Your task to perform on an android device: Clear the shopping cart on ebay. Add "macbook" to the cart on ebay, then select checkout. Image 0: 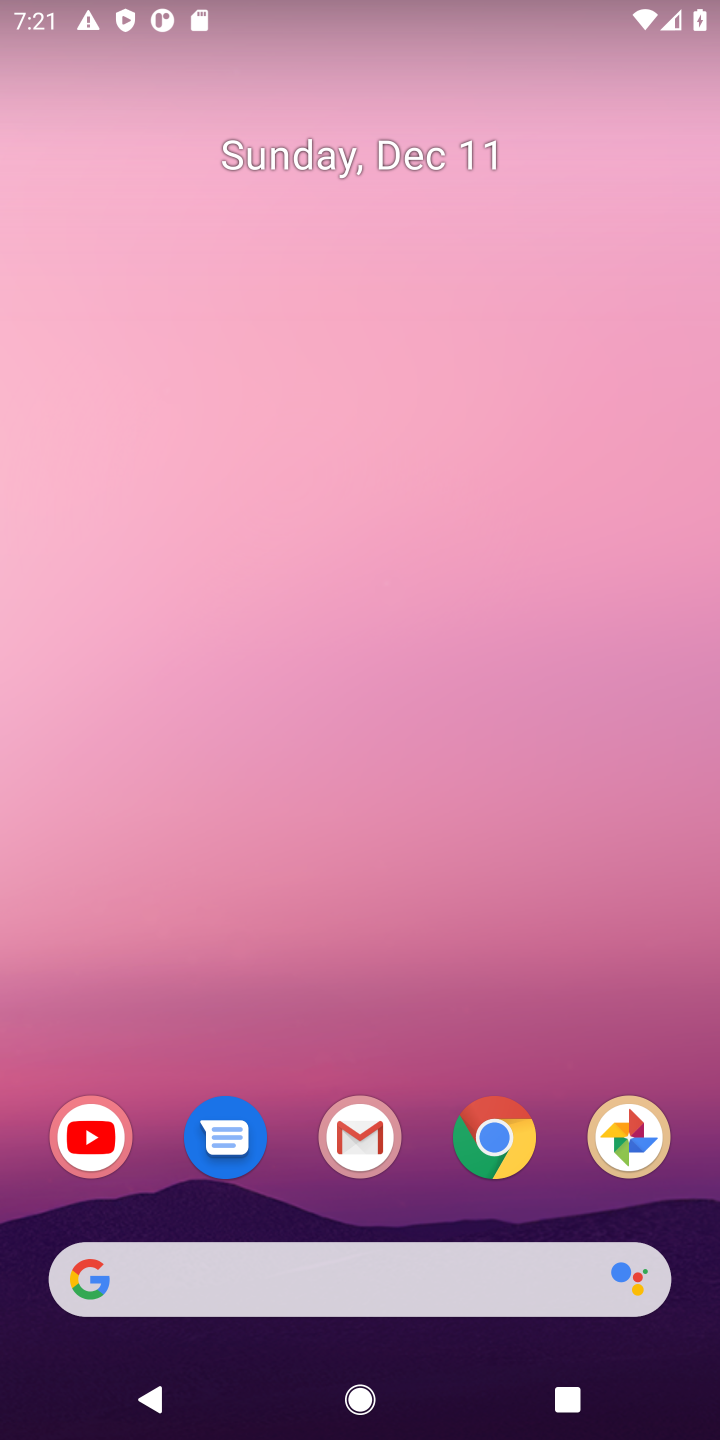
Step 0: click (485, 1130)
Your task to perform on an android device: Clear the shopping cart on ebay. Add "macbook" to the cart on ebay, then select checkout. Image 1: 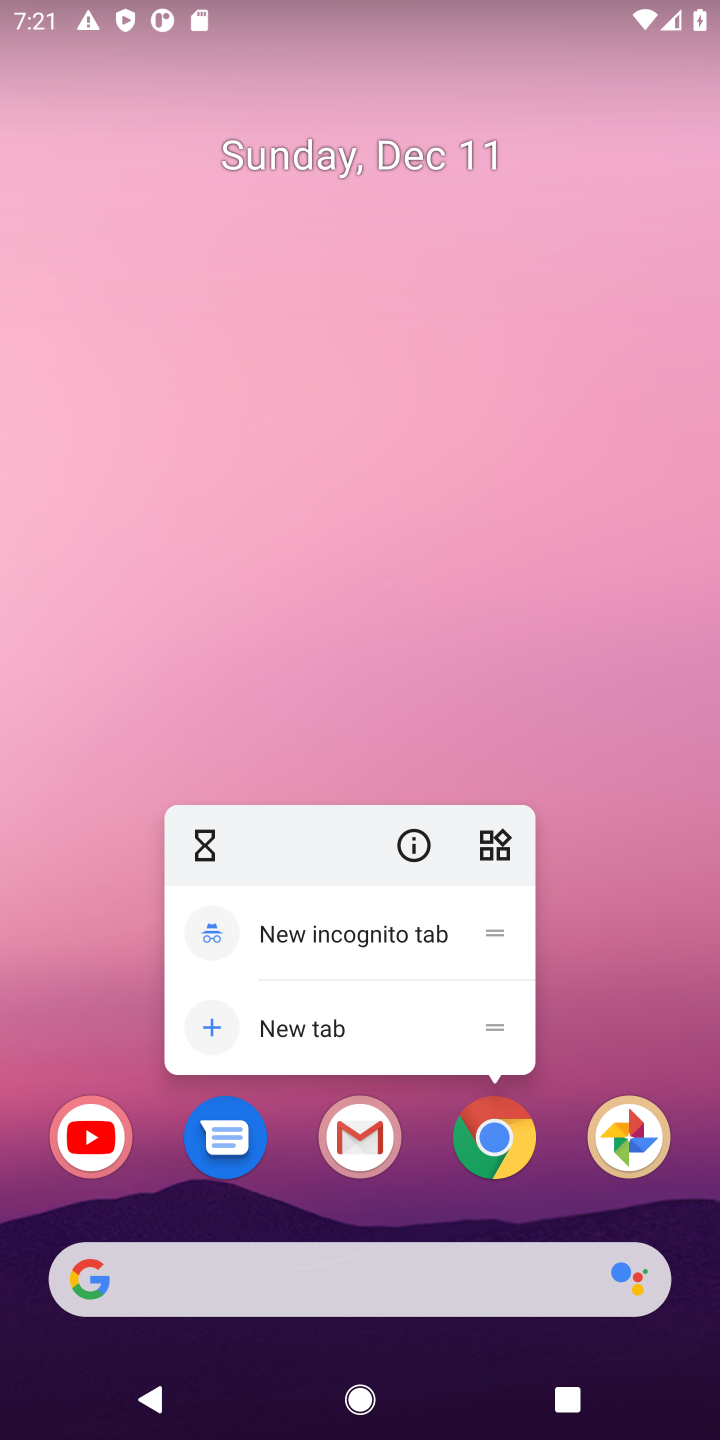
Step 1: click (493, 1117)
Your task to perform on an android device: Clear the shopping cart on ebay. Add "macbook" to the cart on ebay, then select checkout. Image 2: 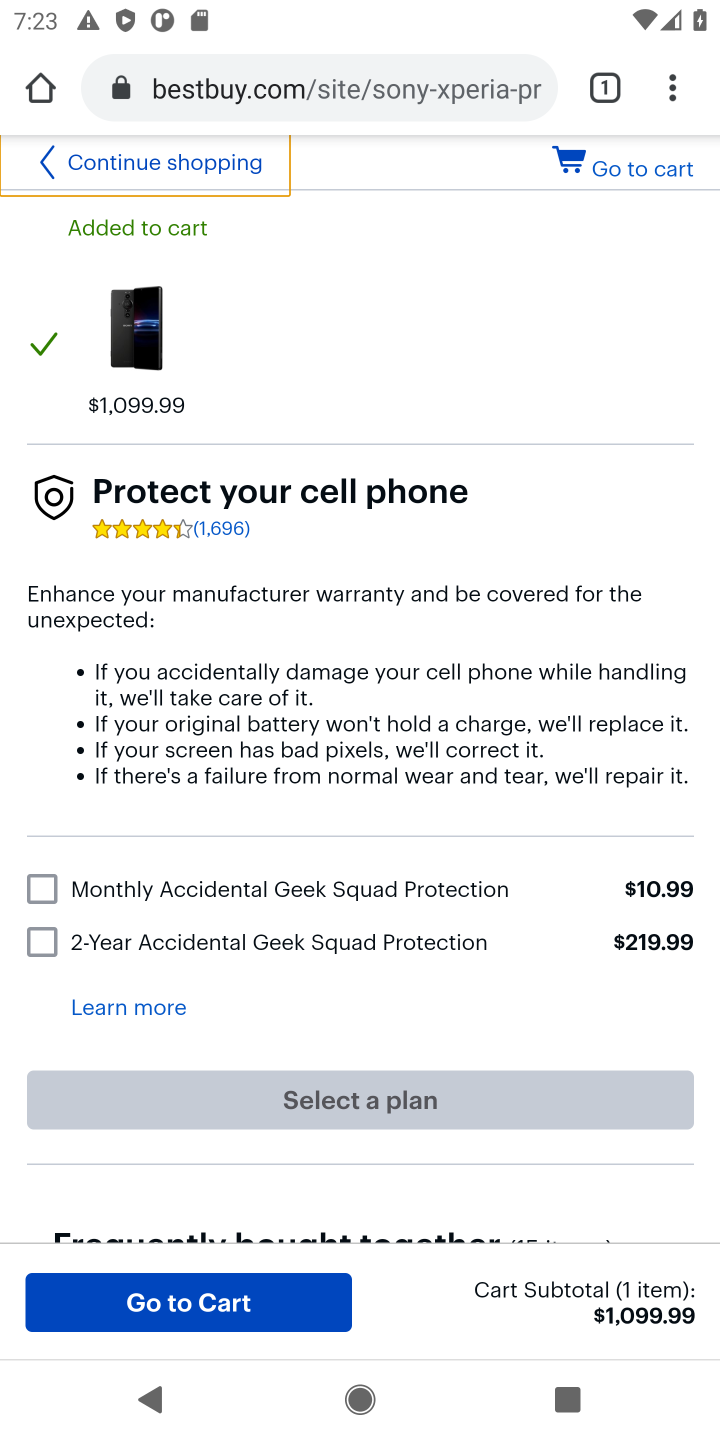
Step 2: click (418, 84)
Your task to perform on an android device: Clear the shopping cart on ebay. Add "macbook" to the cart on ebay, then select checkout. Image 3: 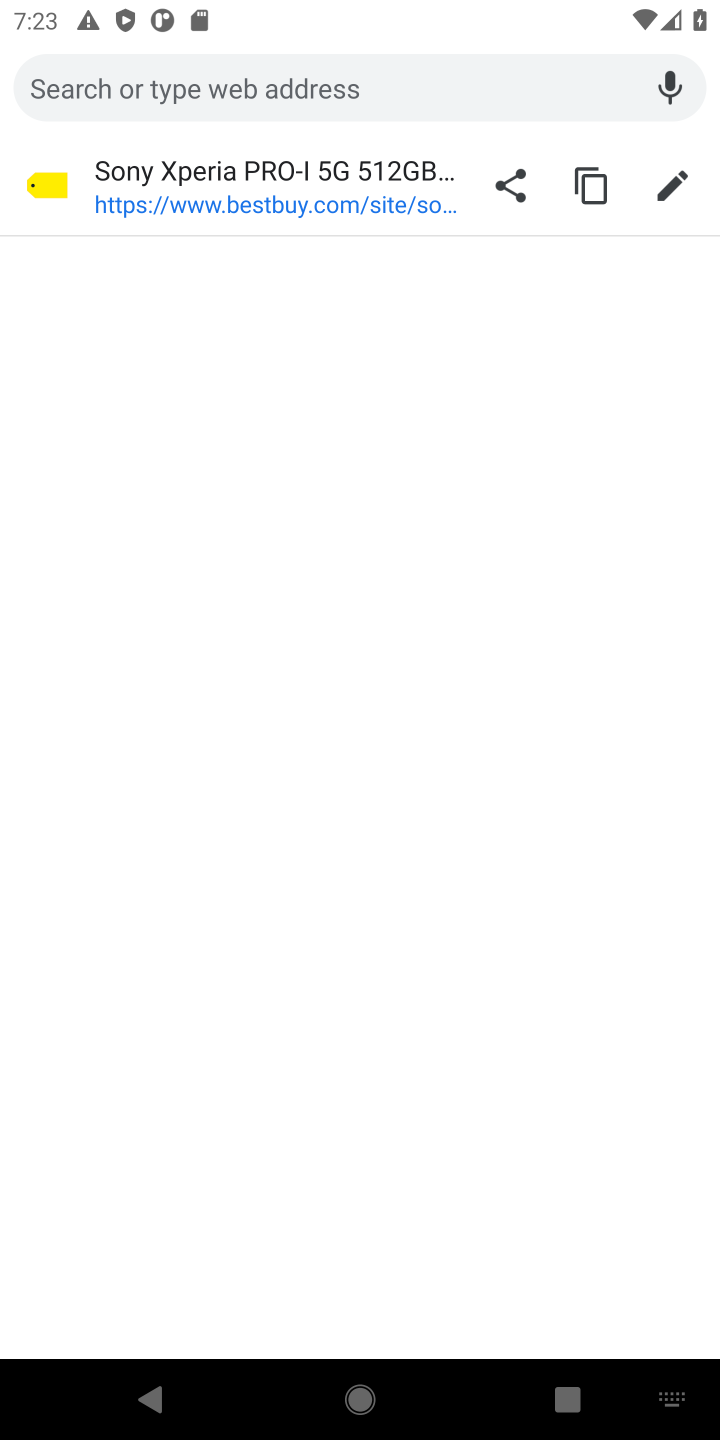
Step 3: type "ebay"
Your task to perform on an android device: Clear the shopping cart on ebay. Add "macbook" to the cart on ebay, then select checkout. Image 4: 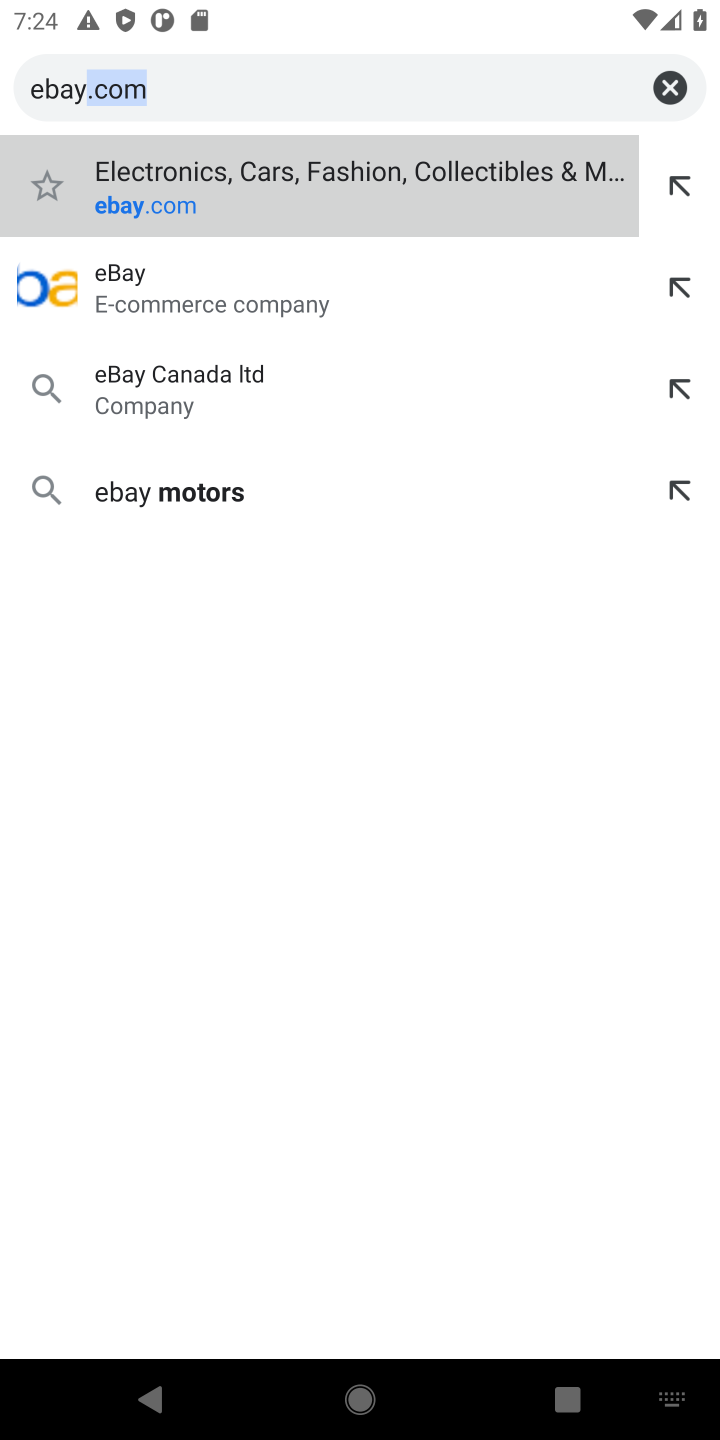
Step 4: click (449, 195)
Your task to perform on an android device: Clear the shopping cart on ebay. Add "macbook" to the cart on ebay, then select checkout. Image 5: 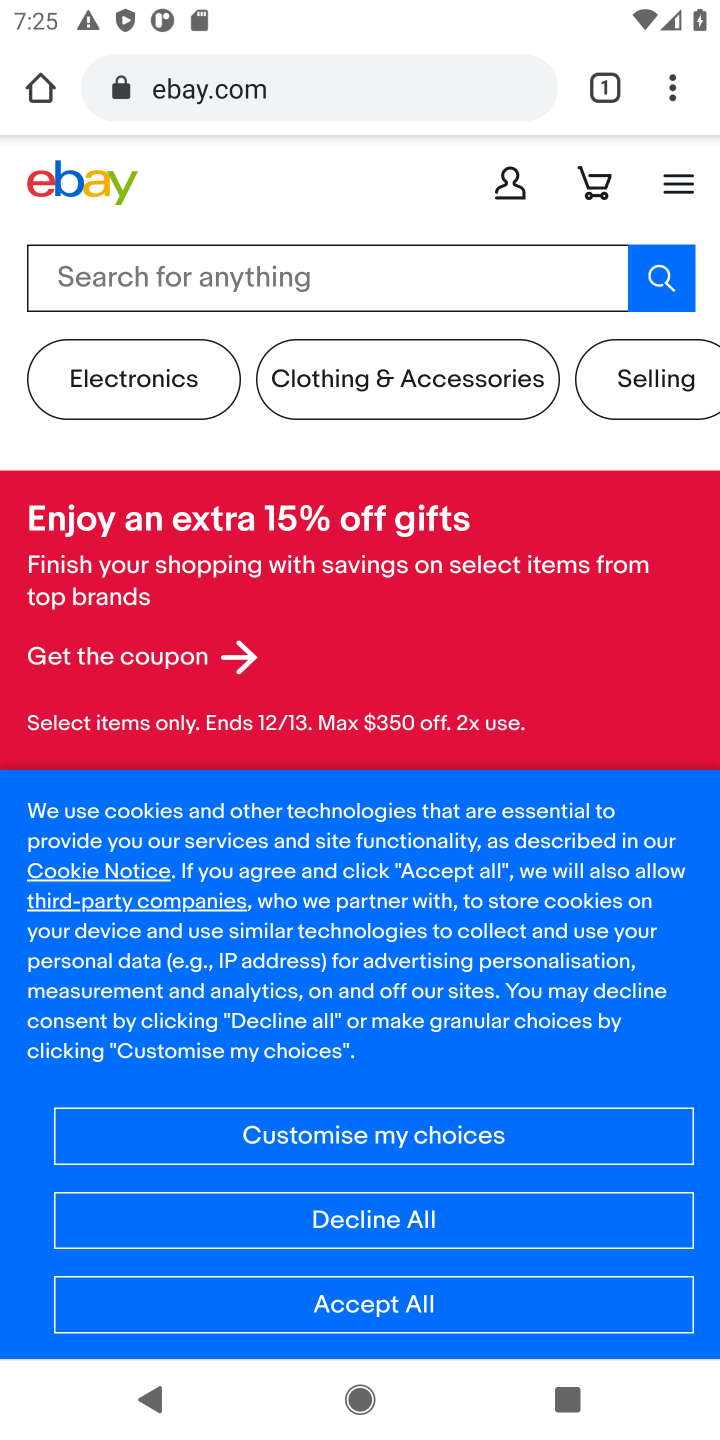
Step 5: click (343, 275)
Your task to perform on an android device: Clear the shopping cart on ebay. Add "macbook" to the cart on ebay, then select checkout. Image 6: 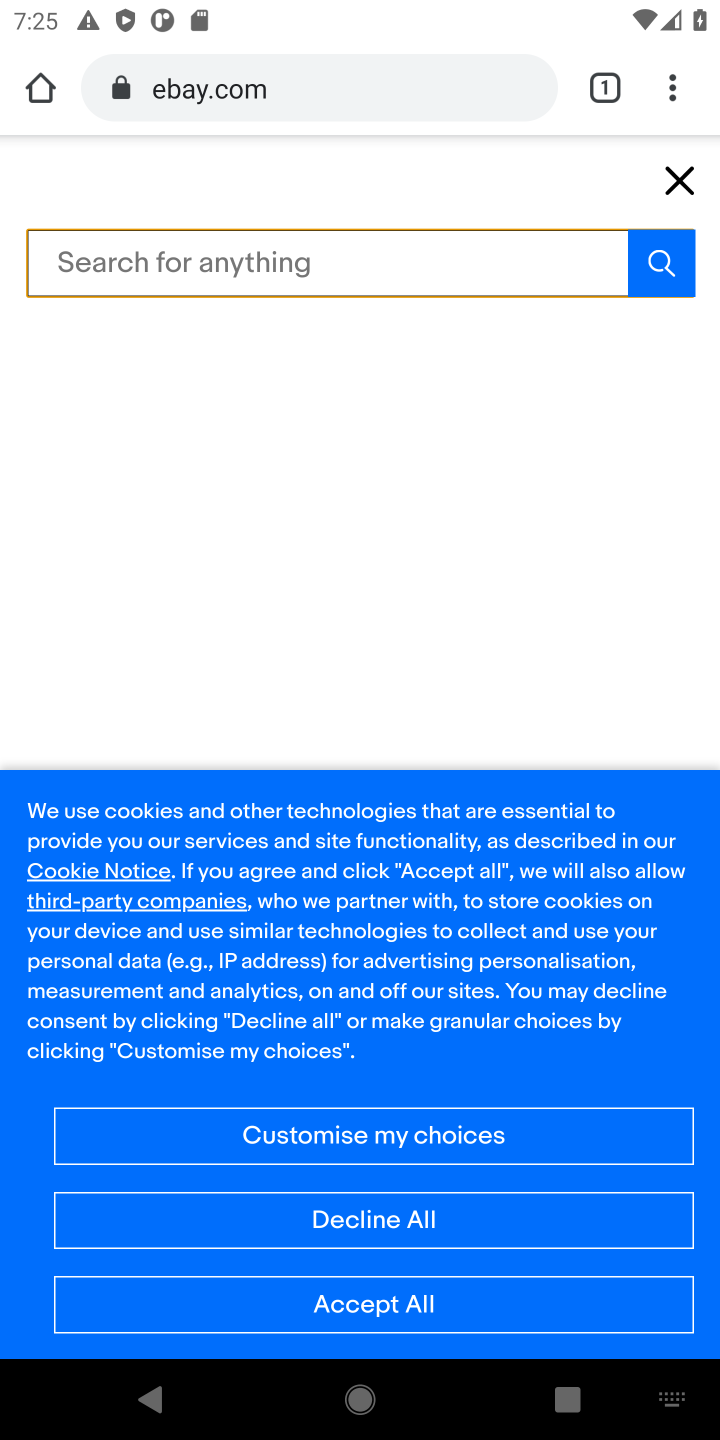
Step 6: type "macbook"
Your task to perform on an android device: Clear the shopping cart on ebay. Add "macbook" to the cart on ebay, then select checkout. Image 7: 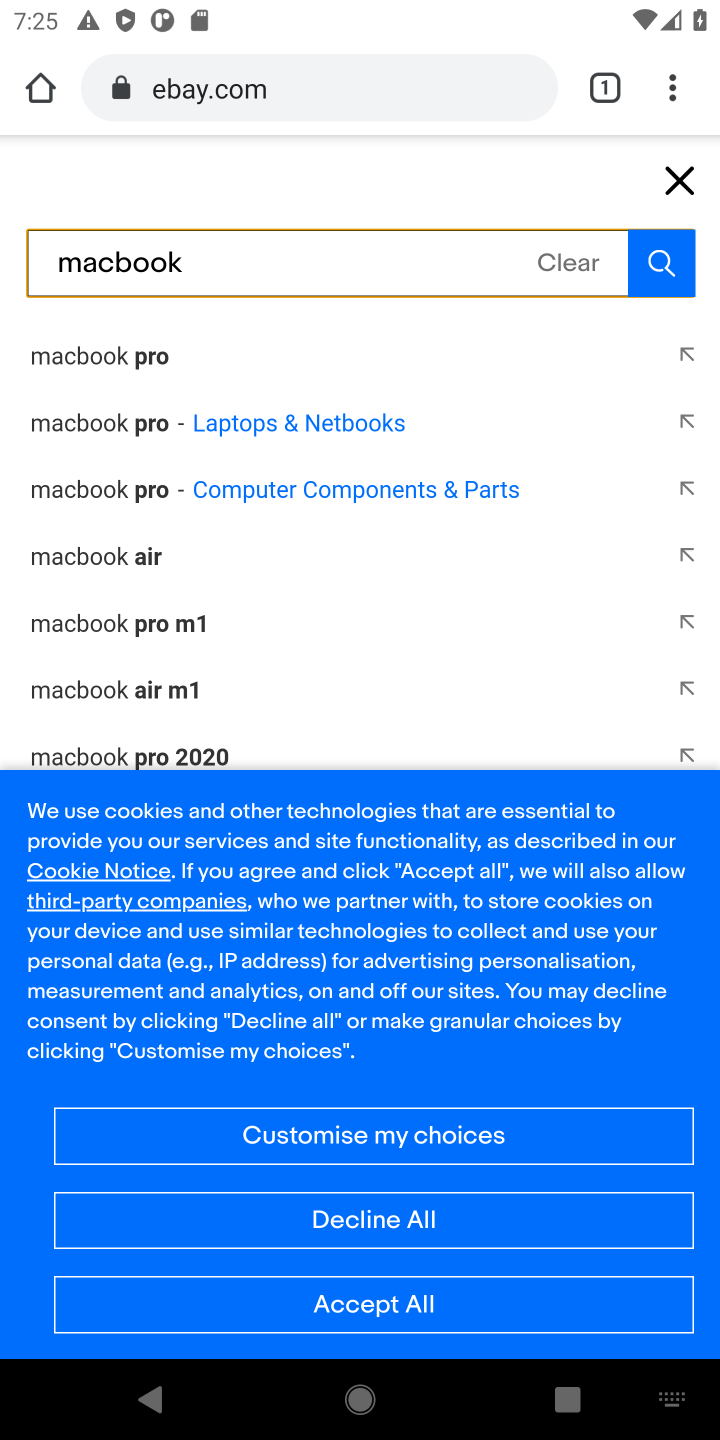
Step 7: click (366, 1306)
Your task to perform on an android device: Clear the shopping cart on ebay. Add "macbook" to the cart on ebay, then select checkout. Image 8: 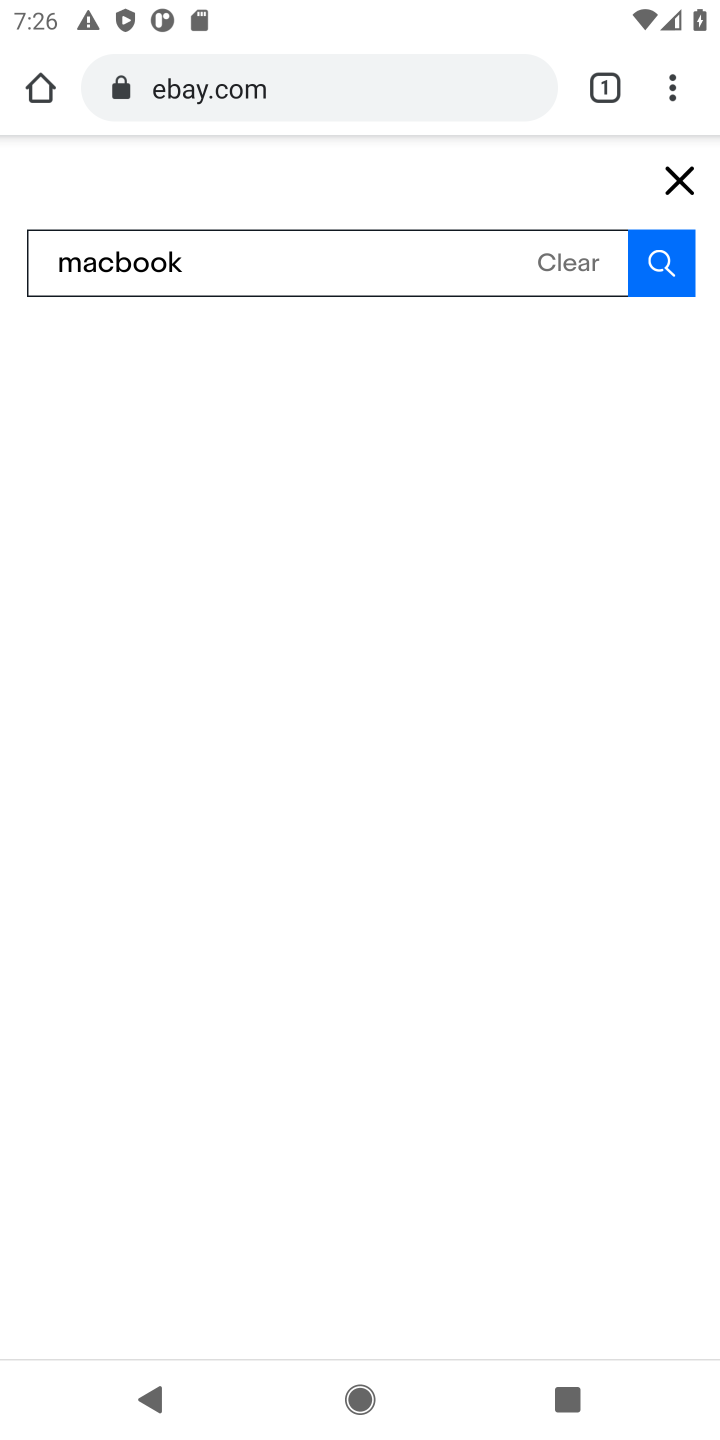
Step 8: click (667, 270)
Your task to perform on an android device: Clear the shopping cart on ebay. Add "macbook" to the cart on ebay, then select checkout. Image 9: 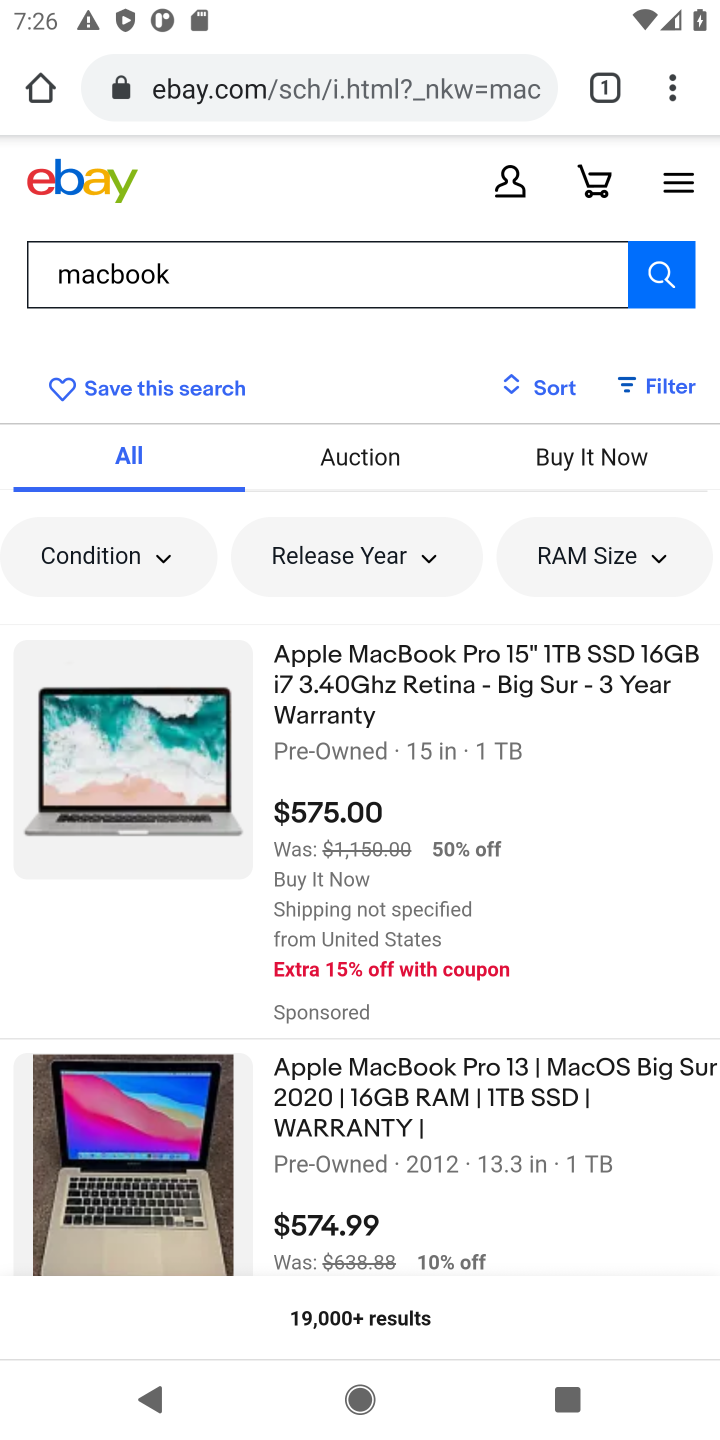
Step 9: click (206, 803)
Your task to perform on an android device: Clear the shopping cart on ebay. Add "macbook" to the cart on ebay, then select checkout. Image 10: 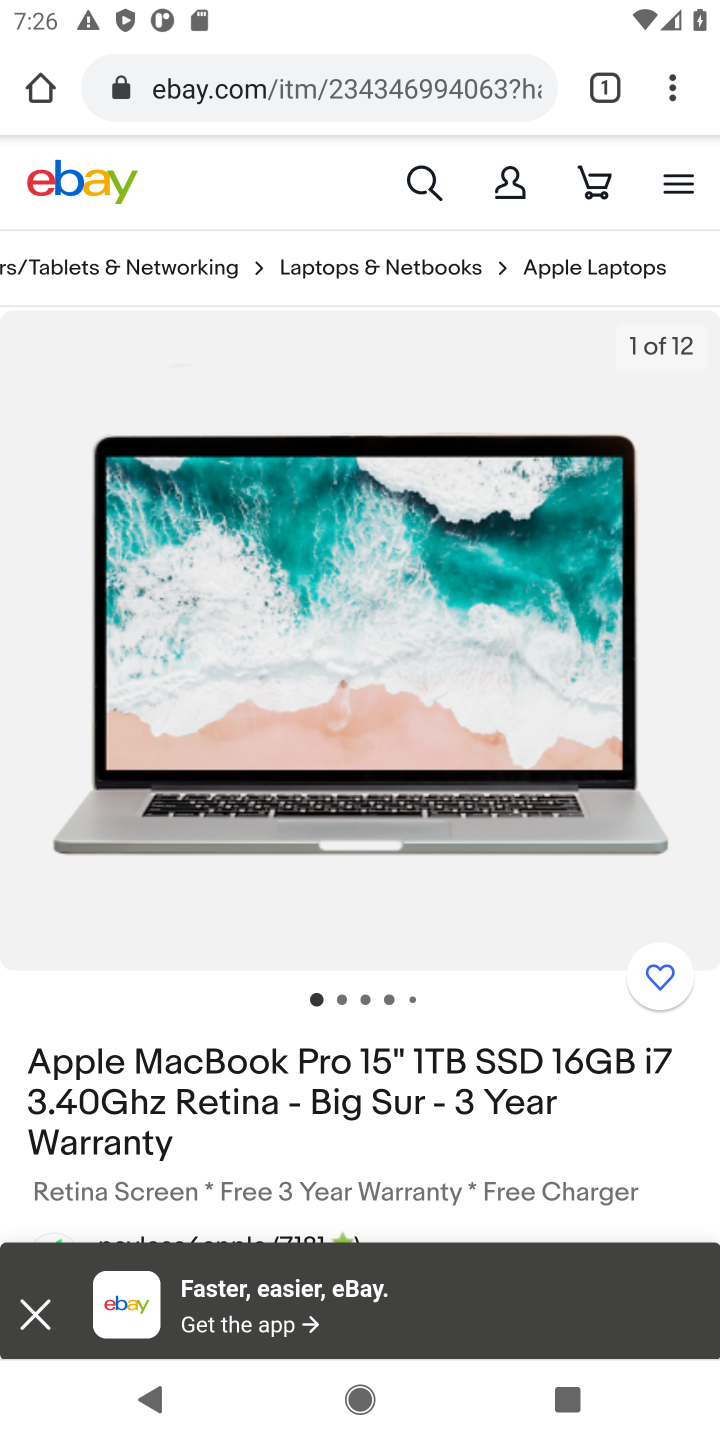
Step 10: drag from (365, 1179) to (326, 191)
Your task to perform on an android device: Clear the shopping cart on ebay. Add "macbook" to the cart on ebay, then select checkout. Image 11: 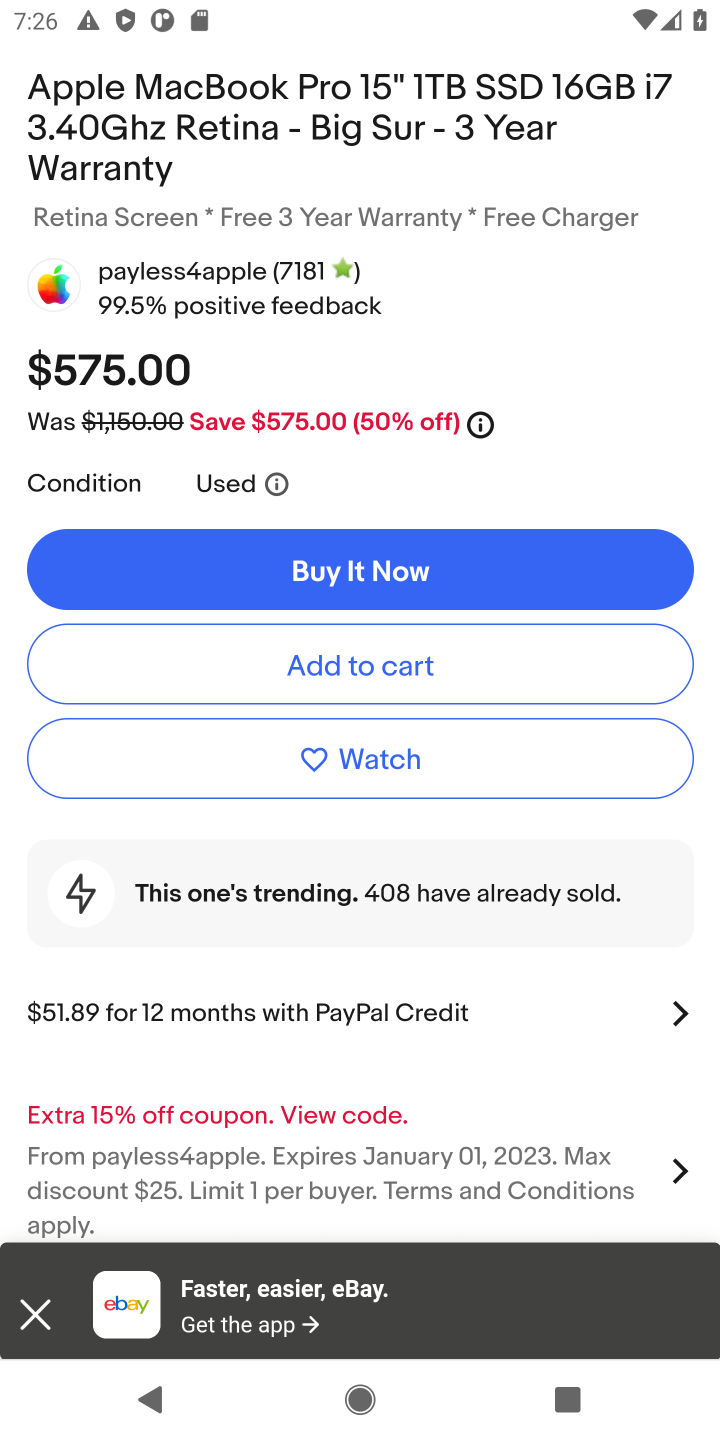
Step 11: click (354, 658)
Your task to perform on an android device: Clear the shopping cart on ebay. Add "macbook" to the cart on ebay, then select checkout. Image 12: 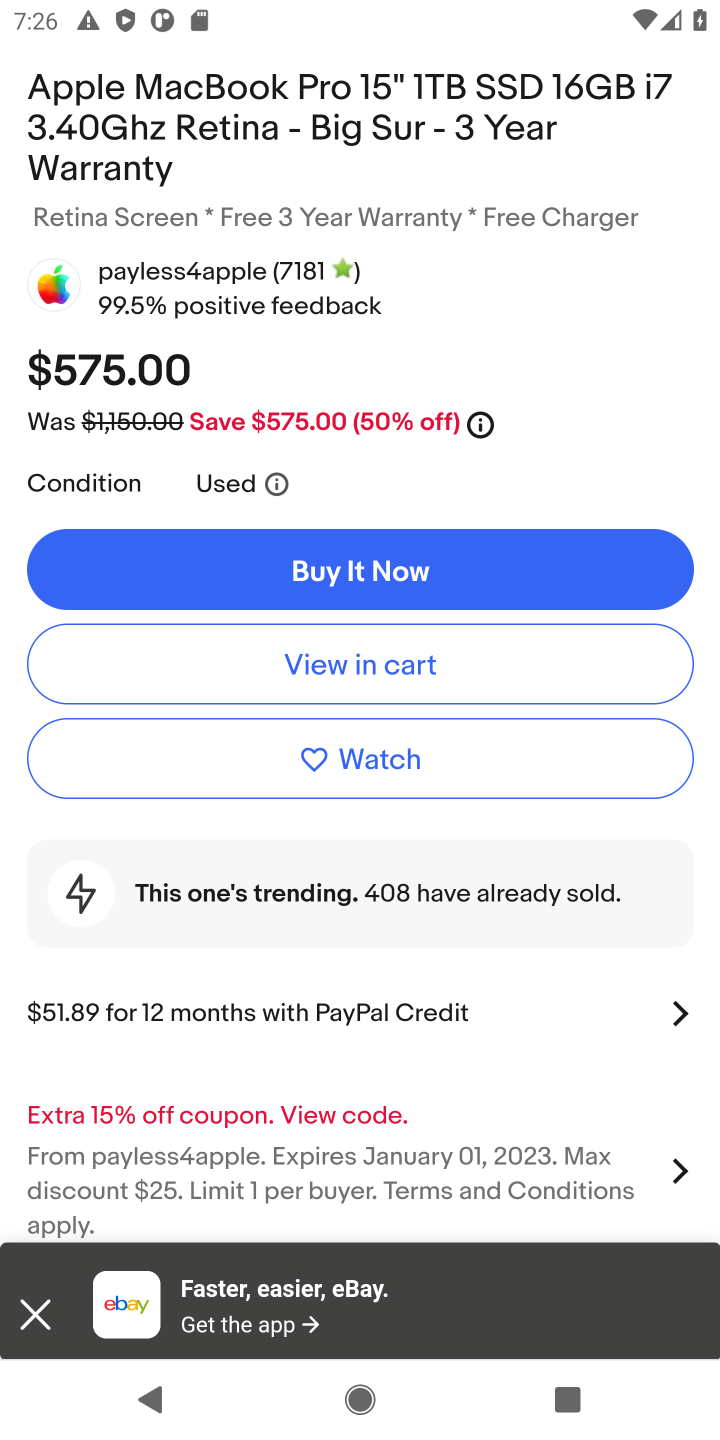
Step 12: click (369, 663)
Your task to perform on an android device: Clear the shopping cart on ebay. Add "macbook" to the cart on ebay, then select checkout. Image 13: 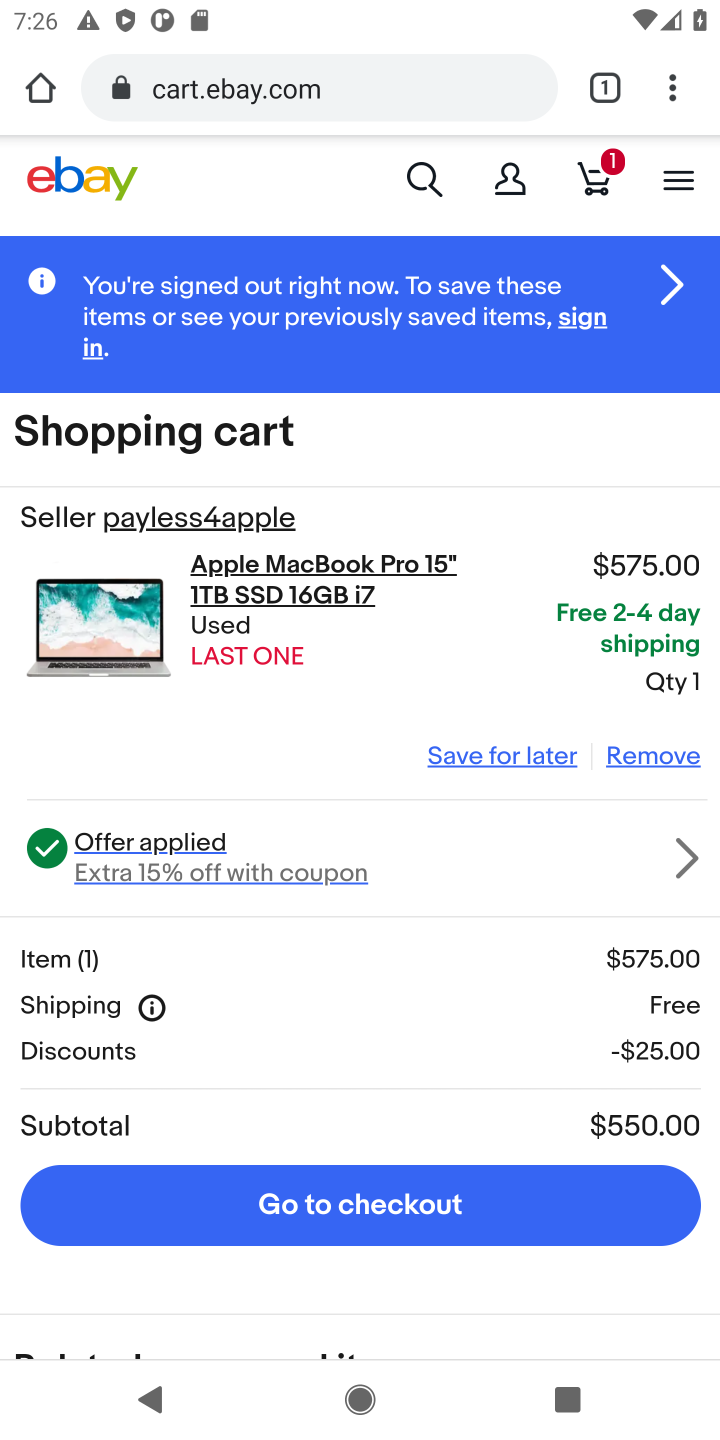
Step 13: click (416, 1211)
Your task to perform on an android device: Clear the shopping cart on ebay. Add "macbook" to the cart on ebay, then select checkout. Image 14: 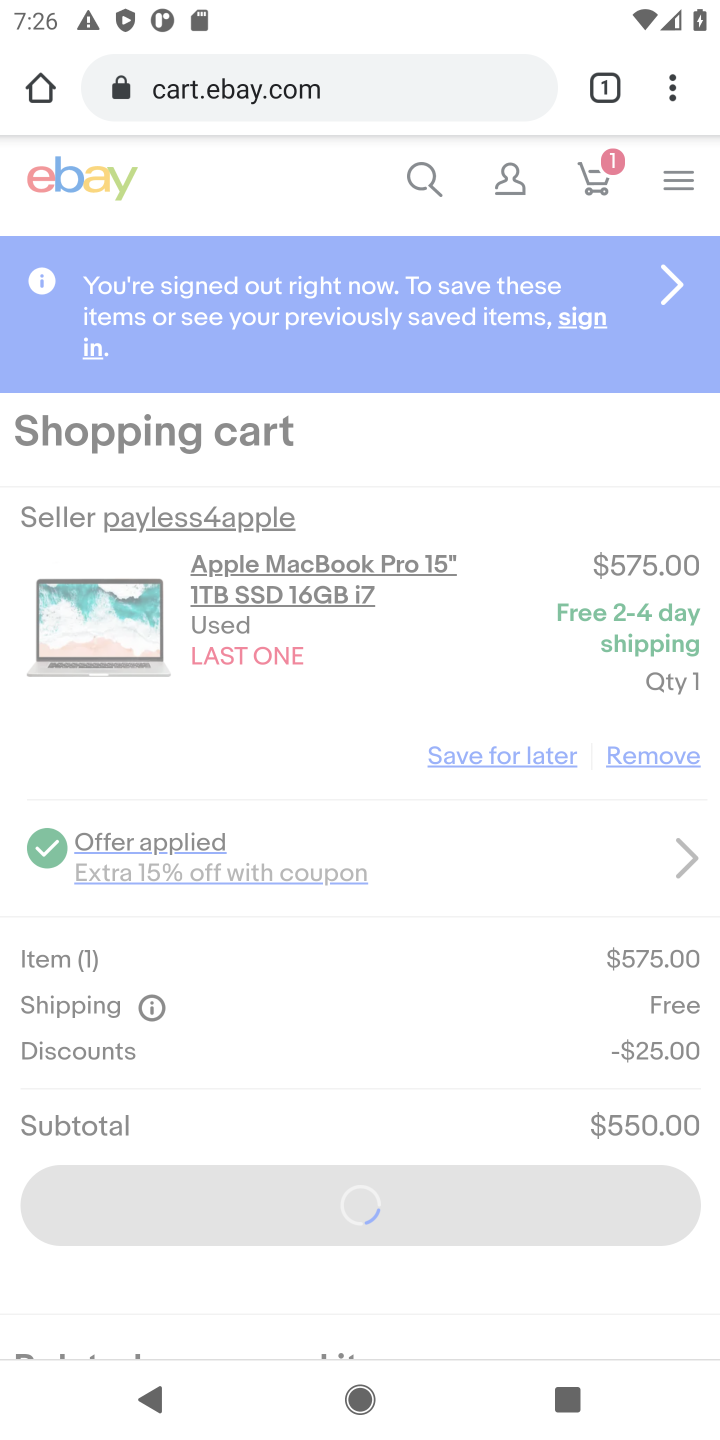
Step 14: task complete